Your task to perform on an android device: Go to Maps Image 0: 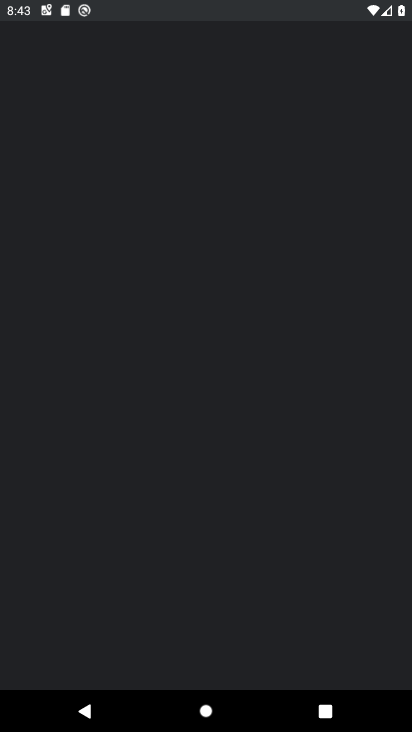
Step 0: drag from (231, 579) to (243, 270)
Your task to perform on an android device: Go to Maps Image 1: 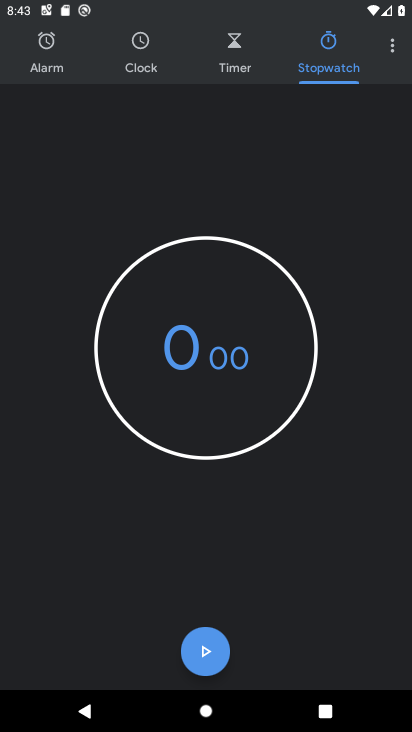
Step 1: press home button
Your task to perform on an android device: Go to Maps Image 2: 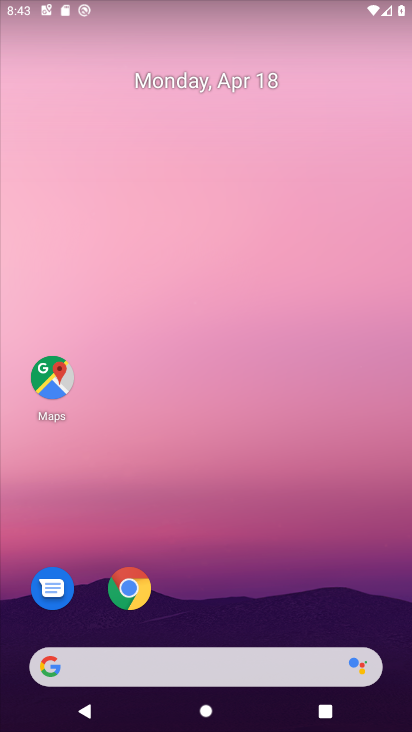
Step 2: drag from (215, 579) to (226, 70)
Your task to perform on an android device: Go to Maps Image 3: 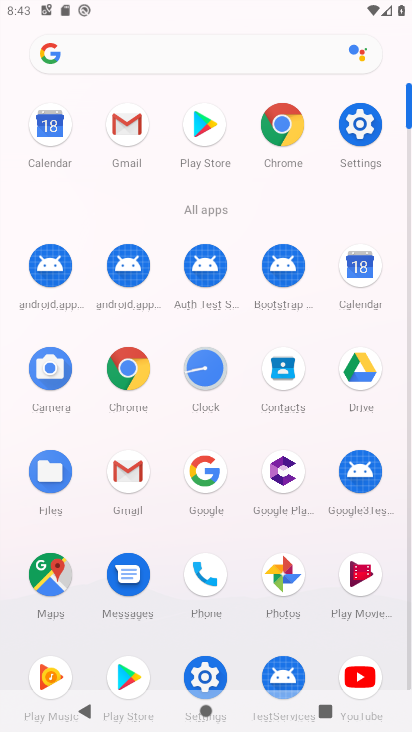
Step 3: click (409, 680)
Your task to perform on an android device: Go to Maps Image 4: 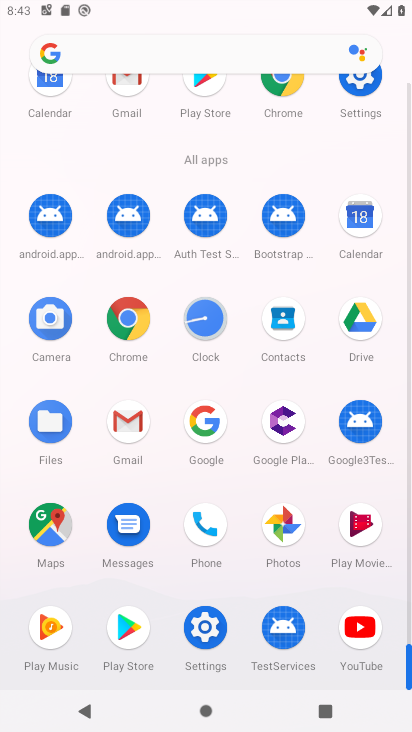
Step 4: click (48, 525)
Your task to perform on an android device: Go to Maps Image 5: 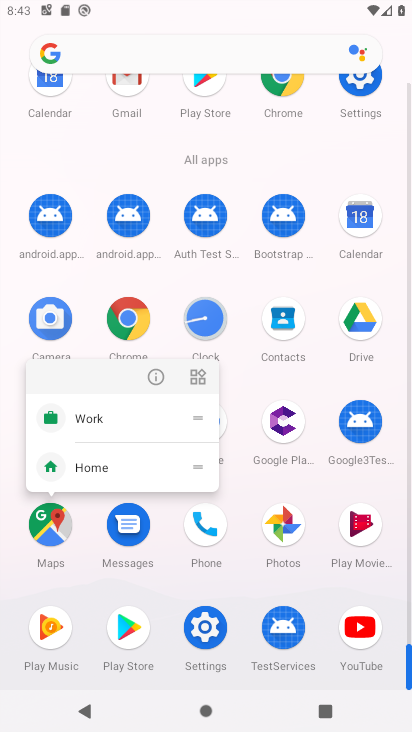
Step 5: click (48, 525)
Your task to perform on an android device: Go to Maps Image 6: 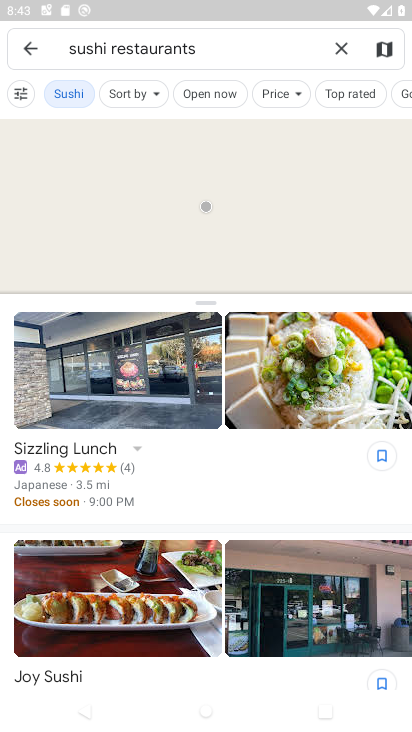
Step 6: click (336, 49)
Your task to perform on an android device: Go to Maps Image 7: 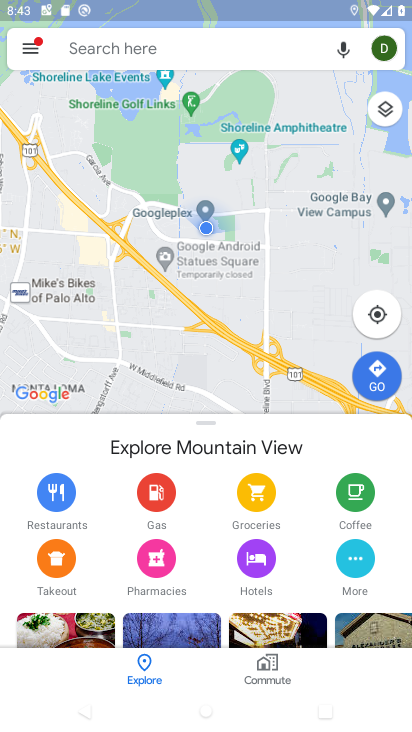
Step 7: task complete